Your task to perform on an android device: change your default location settings in chrome Image 0: 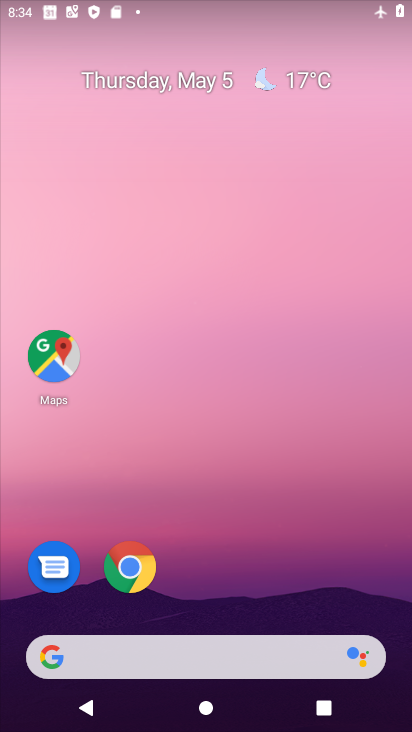
Step 0: drag from (265, 534) to (305, 44)
Your task to perform on an android device: change your default location settings in chrome Image 1: 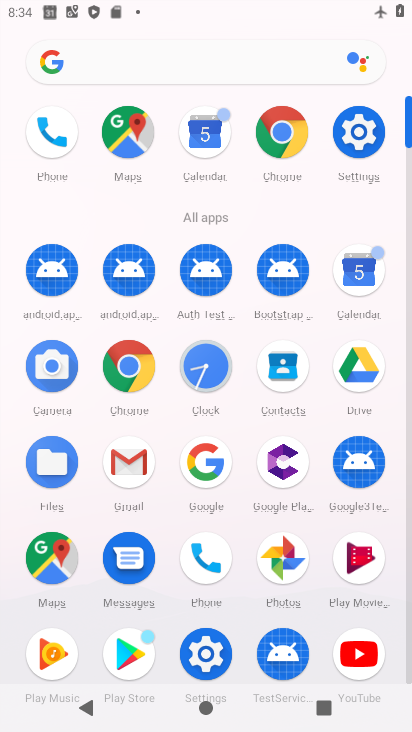
Step 1: click (285, 119)
Your task to perform on an android device: change your default location settings in chrome Image 2: 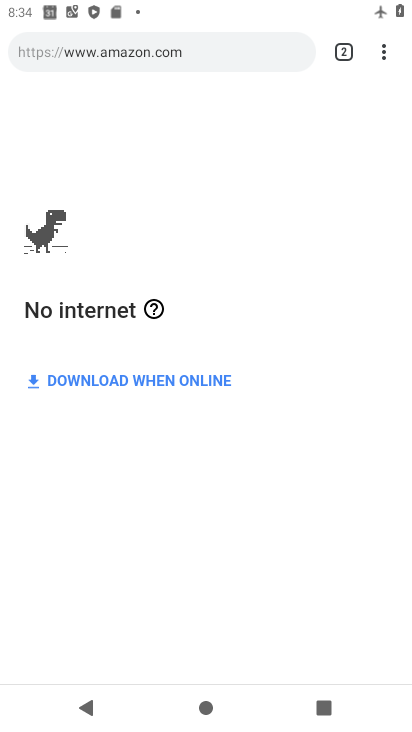
Step 2: drag from (383, 55) to (248, 574)
Your task to perform on an android device: change your default location settings in chrome Image 3: 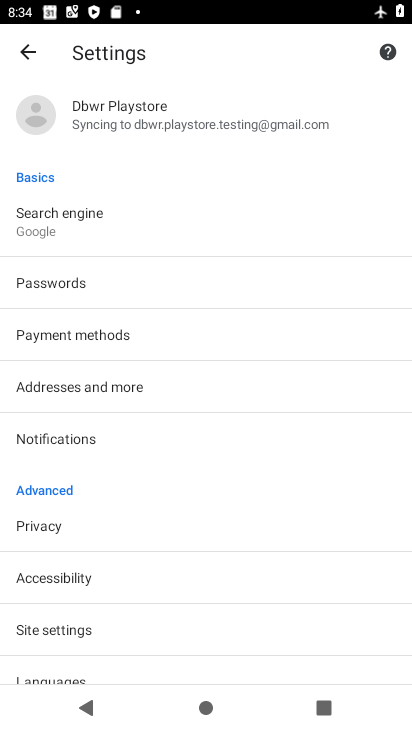
Step 3: click (164, 627)
Your task to perform on an android device: change your default location settings in chrome Image 4: 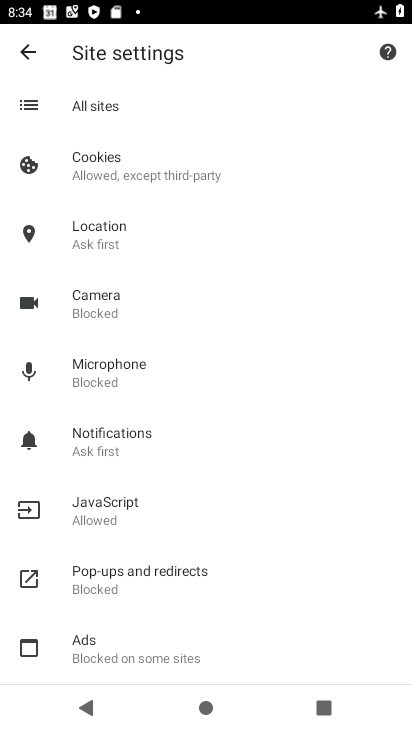
Step 4: click (176, 212)
Your task to perform on an android device: change your default location settings in chrome Image 5: 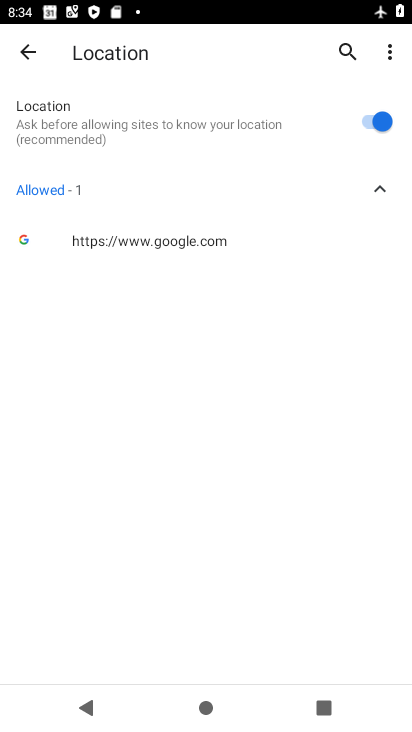
Step 5: click (368, 119)
Your task to perform on an android device: change your default location settings in chrome Image 6: 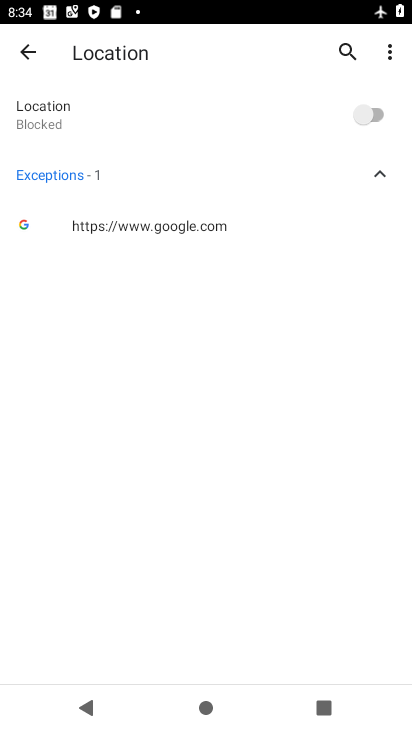
Step 6: task complete